Your task to perform on an android device: Open Youtube and go to the subscriptions tab Image 0: 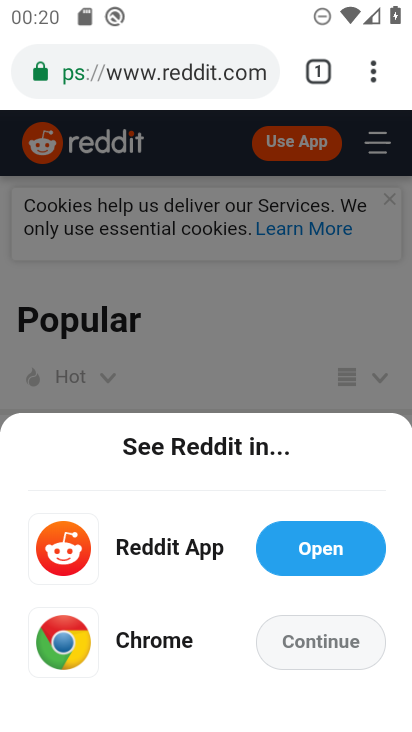
Step 0: drag from (224, 721) to (260, 389)
Your task to perform on an android device: Open Youtube and go to the subscriptions tab Image 1: 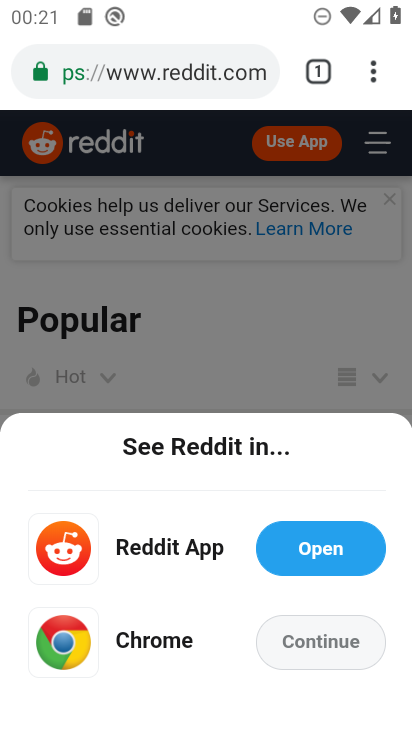
Step 1: press home button
Your task to perform on an android device: Open Youtube and go to the subscriptions tab Image 2: 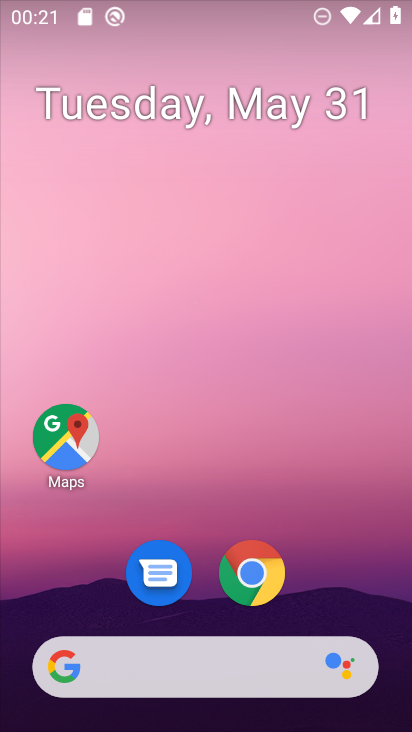
Step 2: drag from (248, 715) to (203, 8)
Your task to perform on an android device: Open Youtube and go to the subscriptions tab Image 3: 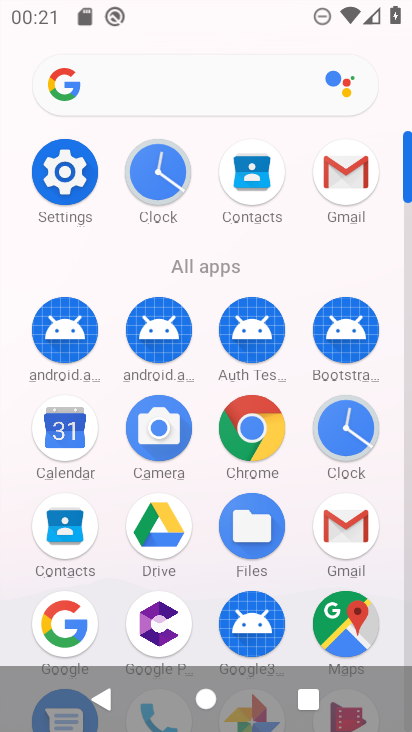
Step 3: drag from (222, 581) to (169, 25)
Your task to perform on an android device: Open Youtube and go to the subscriptions tab Image 4: 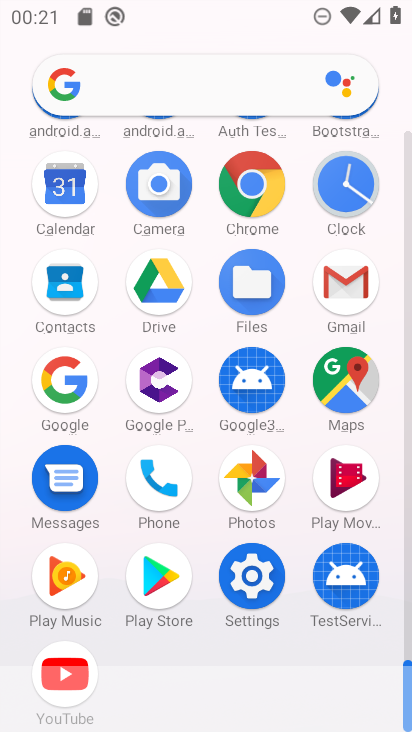
Step 4: click (52, 664)
Your task to perform on an android device: Open Youtube and go to the subscriptions tab Image 5: 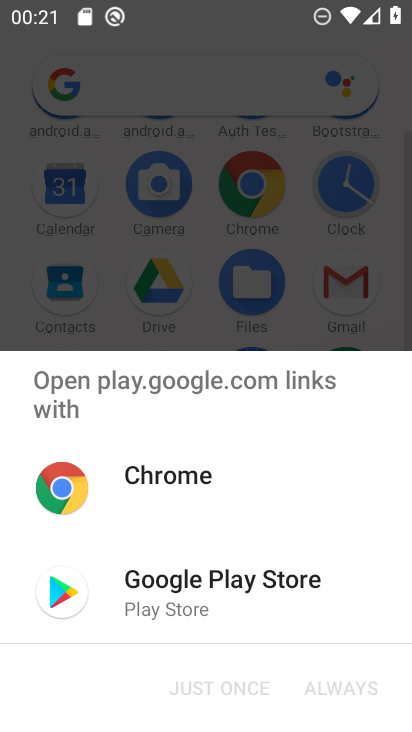
Step 5: click (237, 592)
Your task to perform on an android device: Open Youtube and go to the subscriptions tab Image 6: 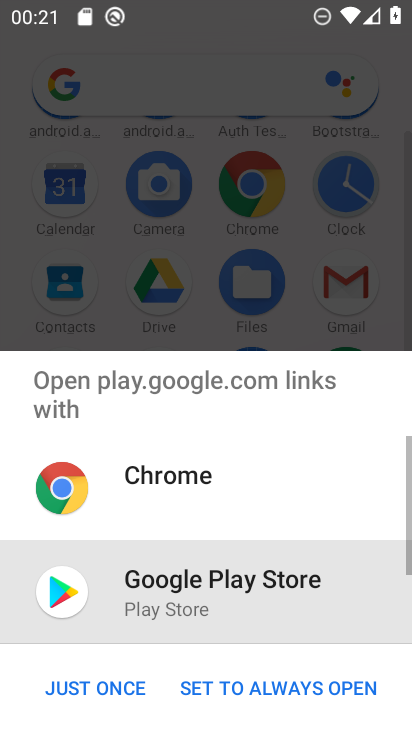
Step 6: click (112, 681)
Your task to perform on an android device: Open Youtube and go to the subscriptions tab Image 7: 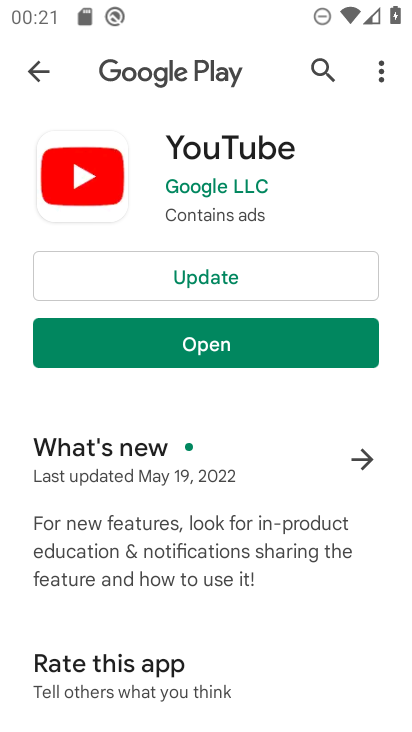
Step 7: click (247, 285)
Your task to perform on an android device: Open Youtube and go to the subscriptions tab Image 8: 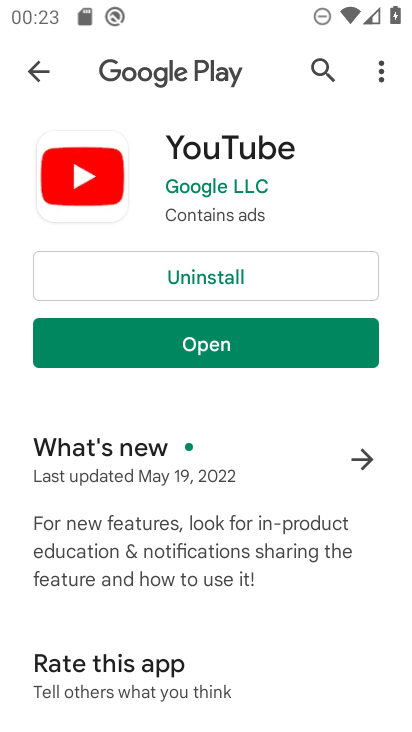
Step 8: click (314, 349)
Your task to perform on an android device: Open Youtube and go to the subscriptions tab Image 9: 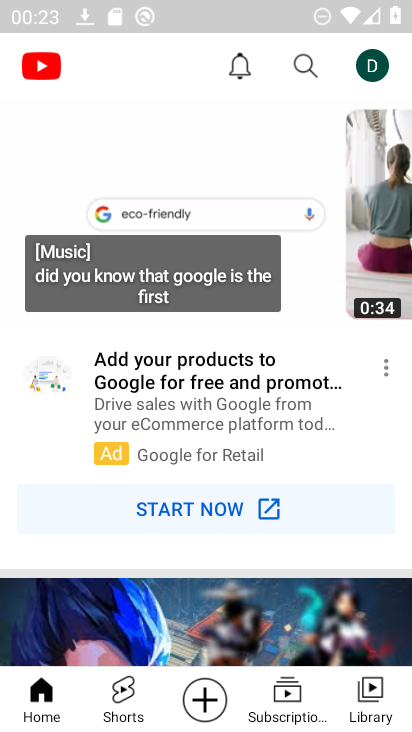
Step 9: click (311, 696)
Your task to perform on an android device: Open Youtube and go to the subscriptions tab Image 10: 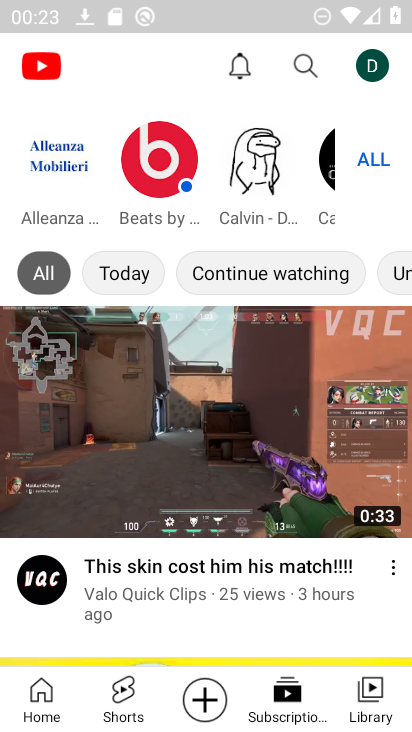
Step 10: task complete